Your task to perform on an android device: See recent photos Image 0: 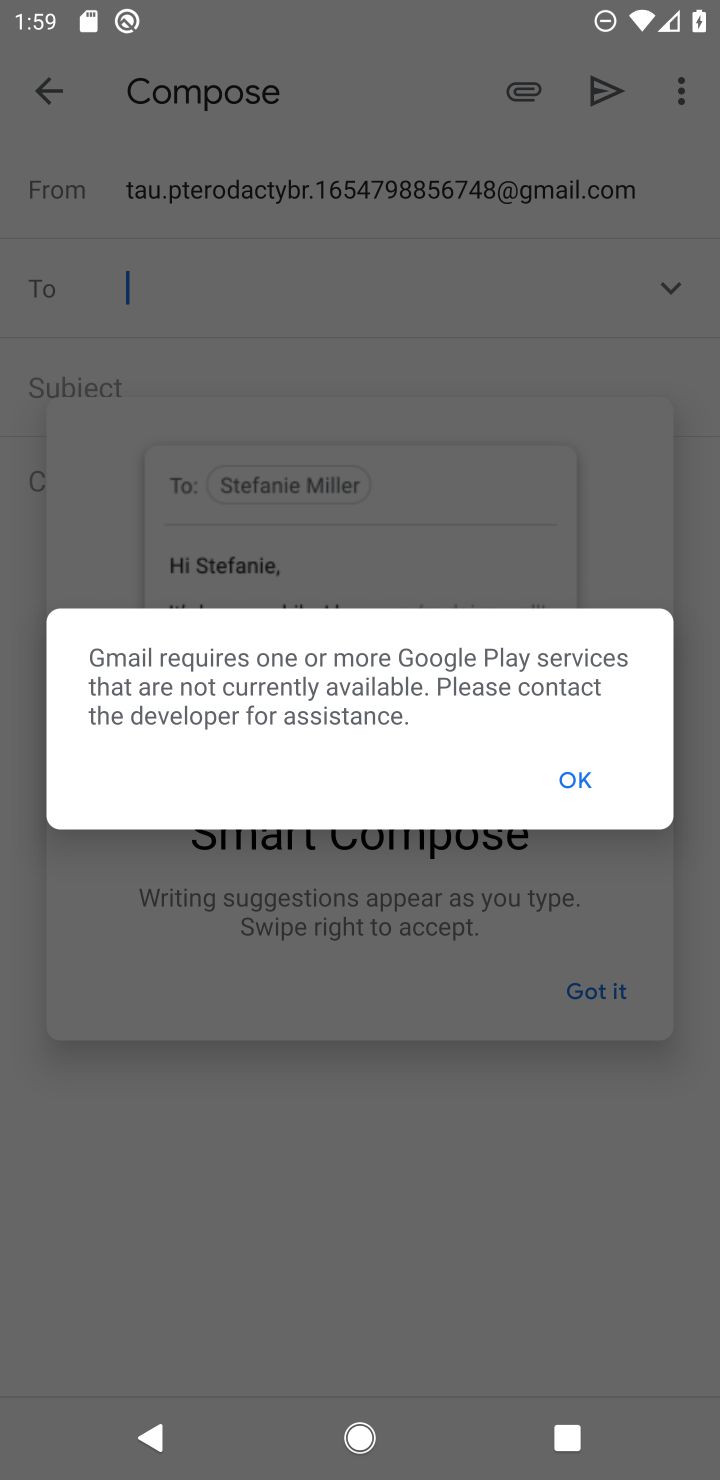
Step 0: press home button
Your task to perform on an android device: See recent photos Image 1: 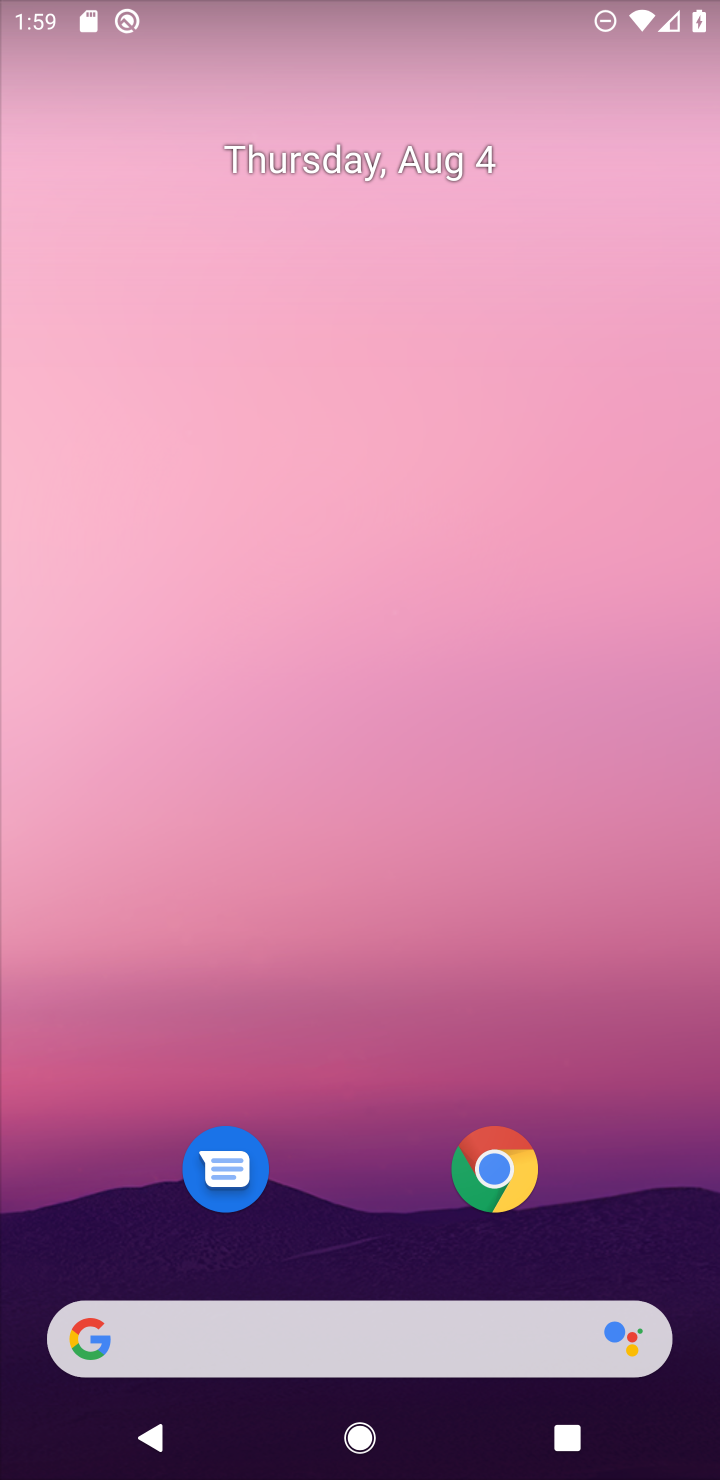
Step 1: drag from (364, 1215) to (358, 15)
Your task to perform on an android device: See recent photos Image 2: 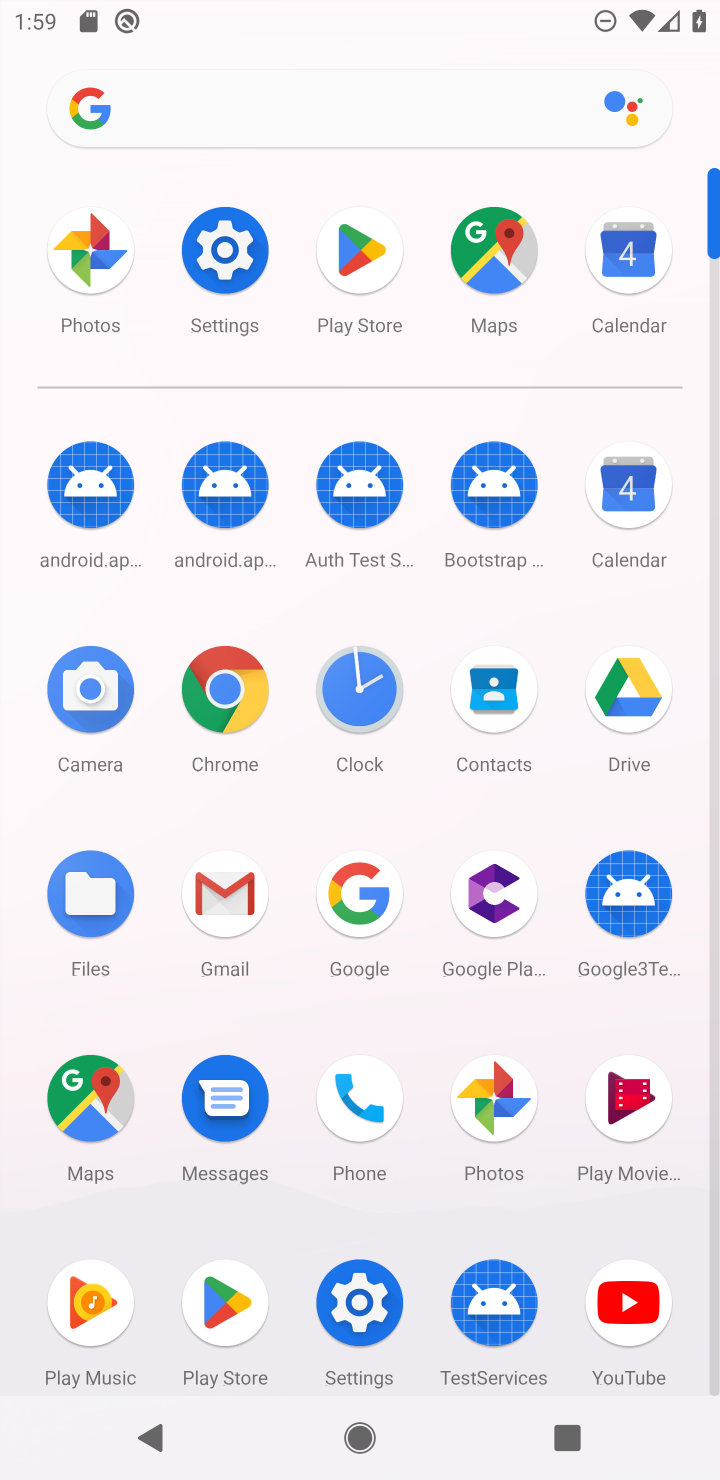
Step 2: click (82, 265)
Your task to perform on an android device: See recent photos Image 3: 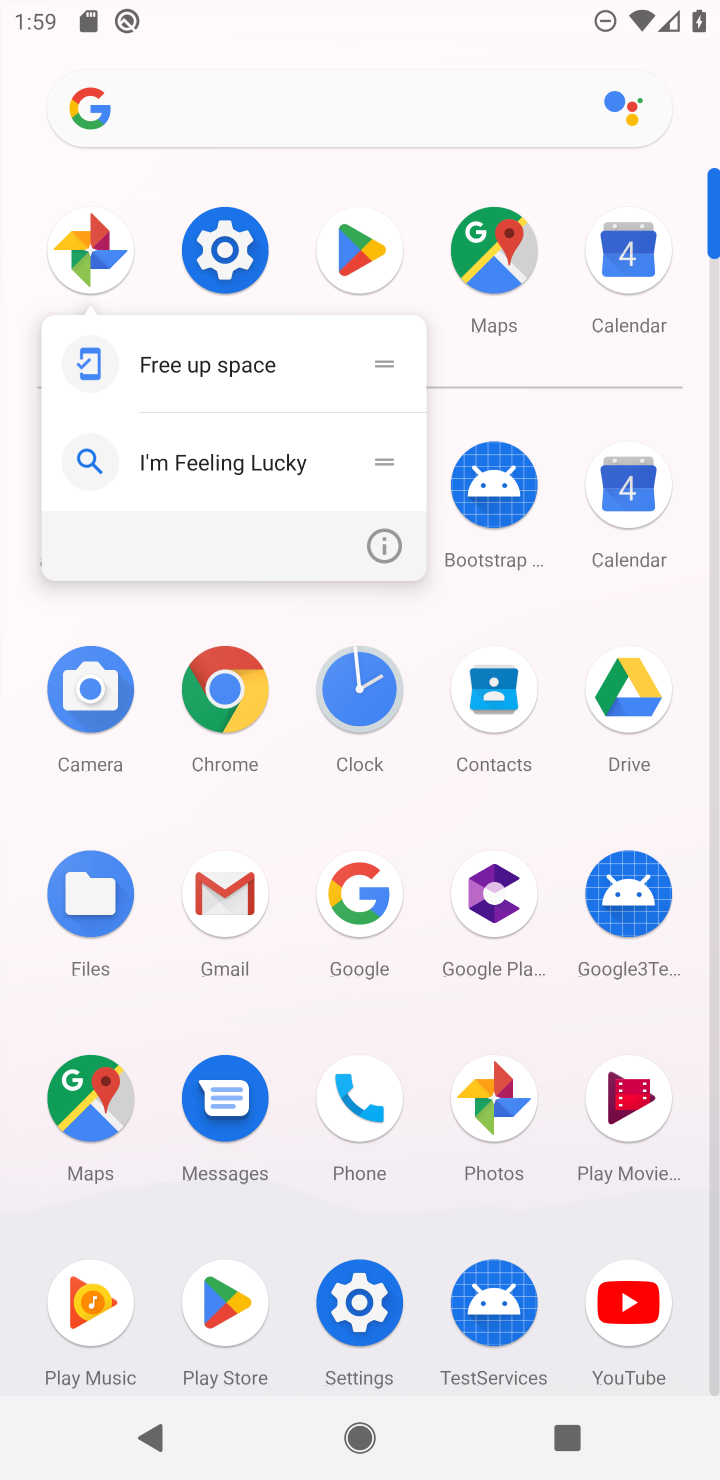
Step 3: click (97, 250)
Your task to perform on an android device: See recent photos Image 4: 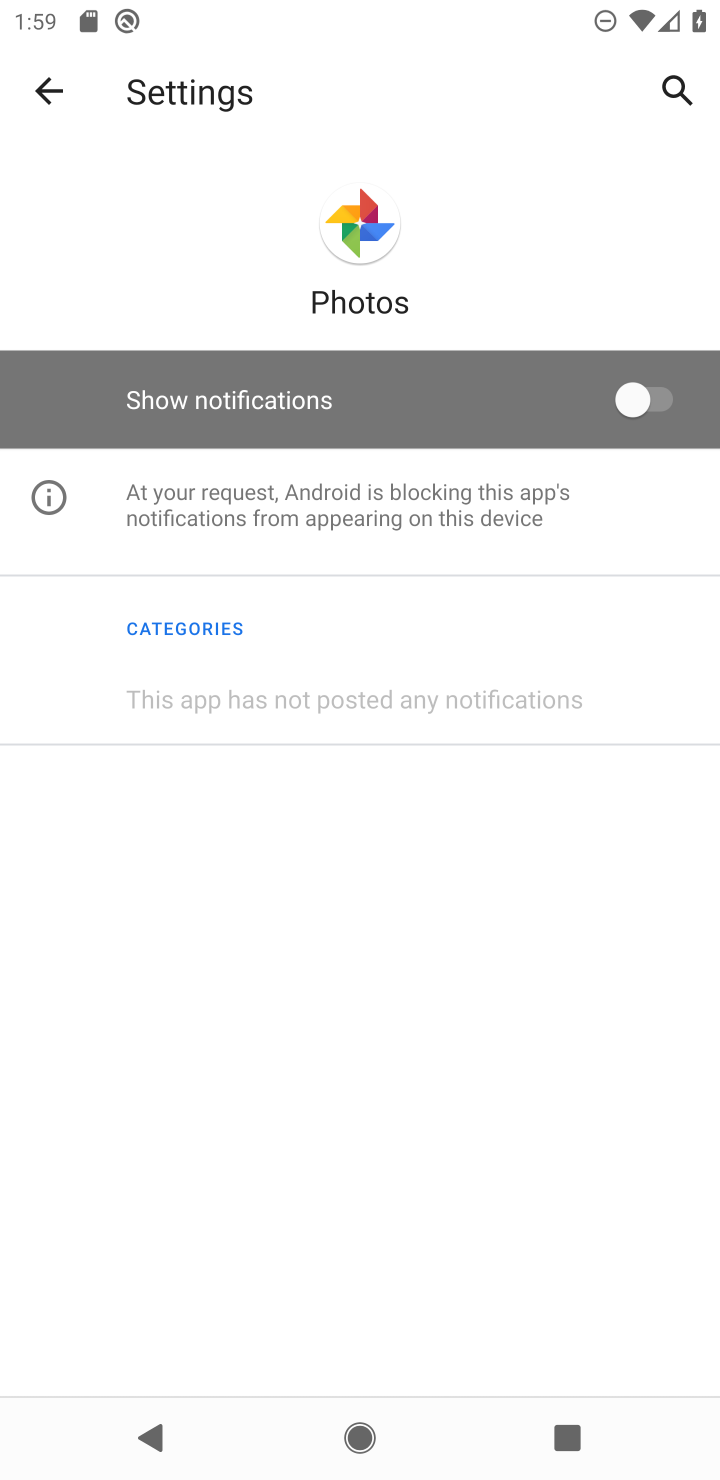
Step 4: click (36, 86)
Your task to perform on an android device: See recent photos Image 5: 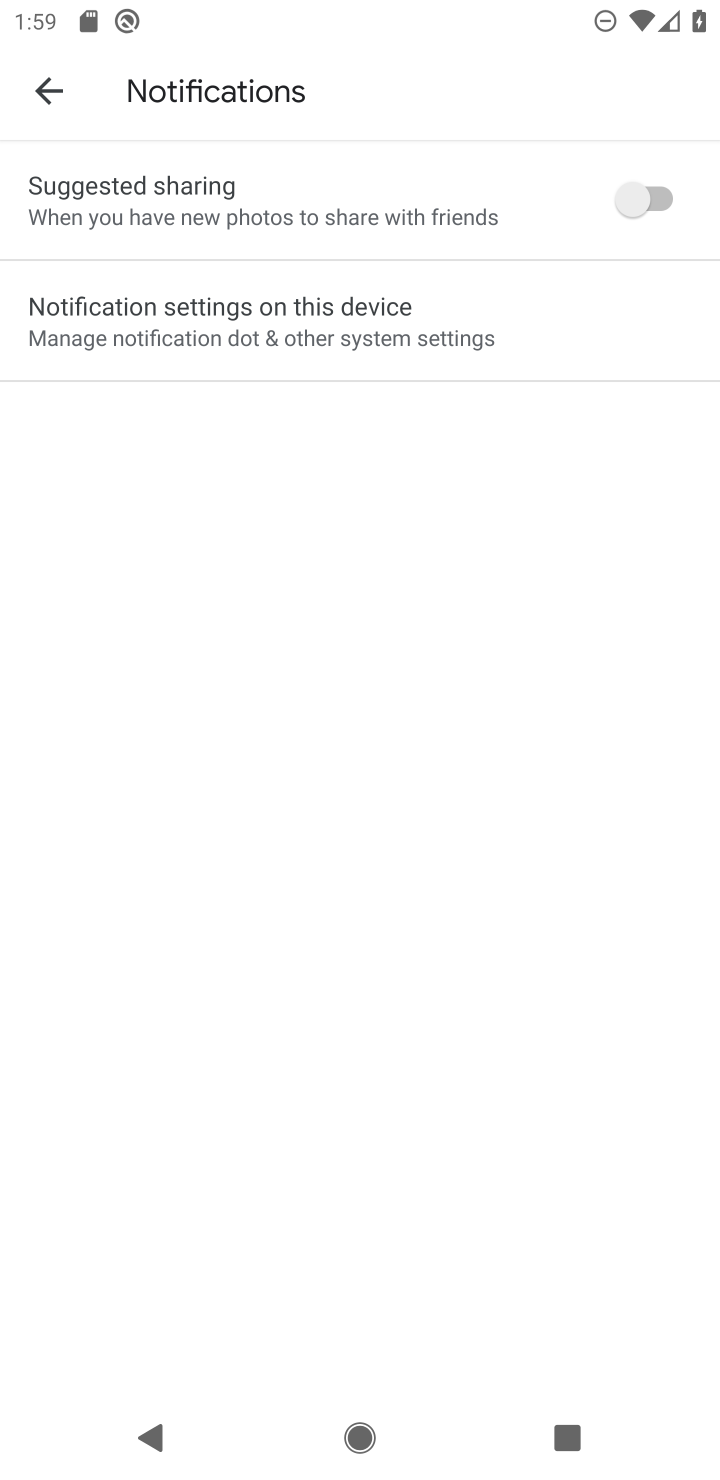
Step 5: click (42, 101)
Your task to perform on an android device: See recent photos Image 6: 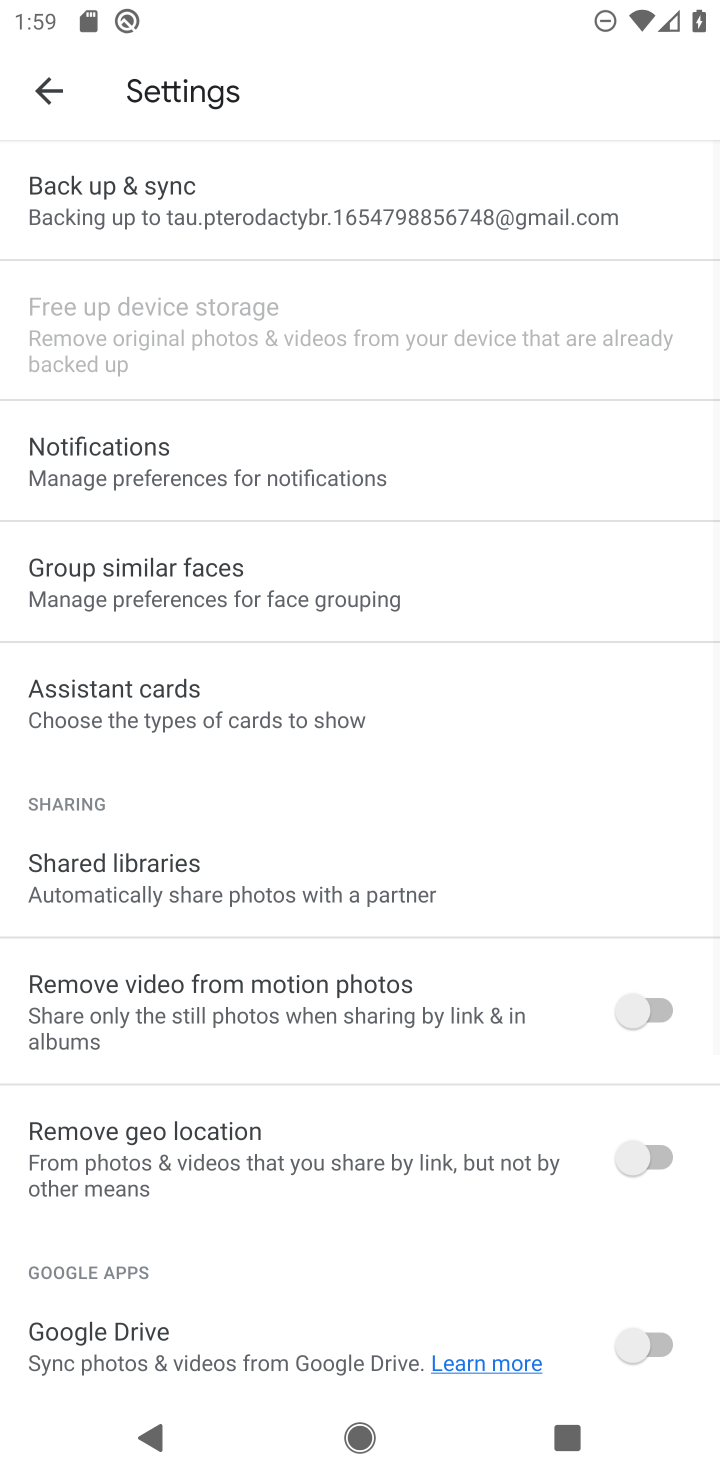
Step 6: click (42, 101)
Your task to perform on an android device: See recent photos Image 7: 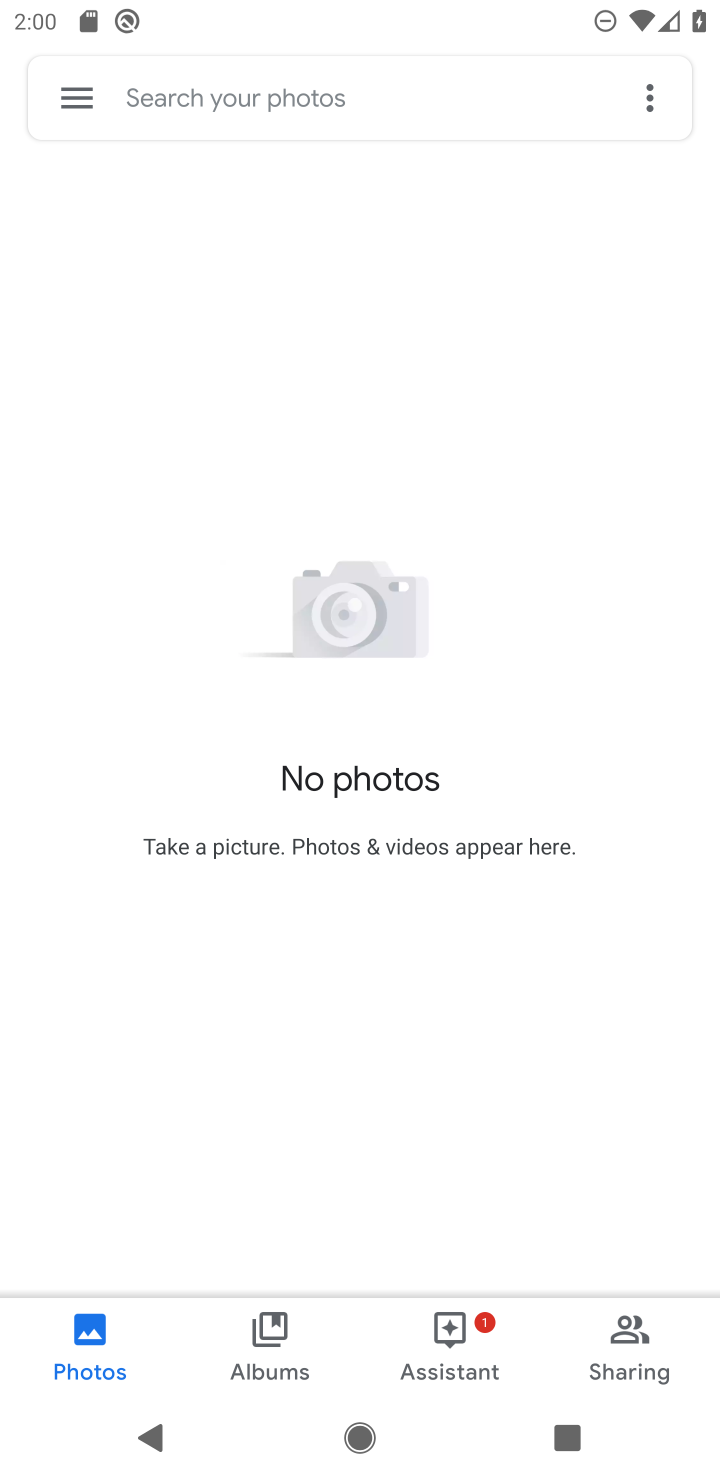
Step 7: task complete